Your task to perform on an android device: check battery use Image 0: 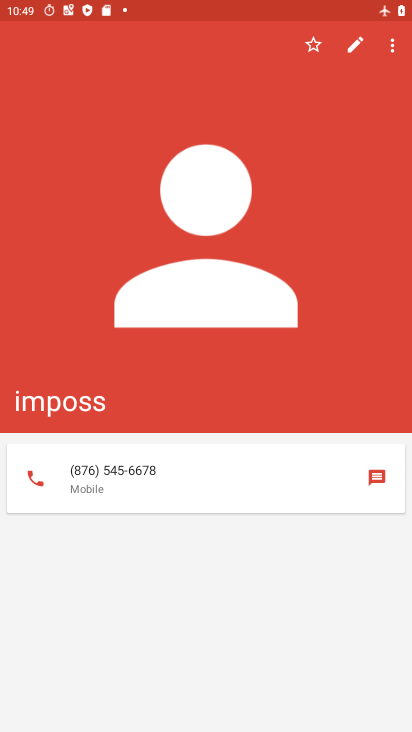
Step 0: press home button
Your task to perform on an android device: check battery use Image 1: 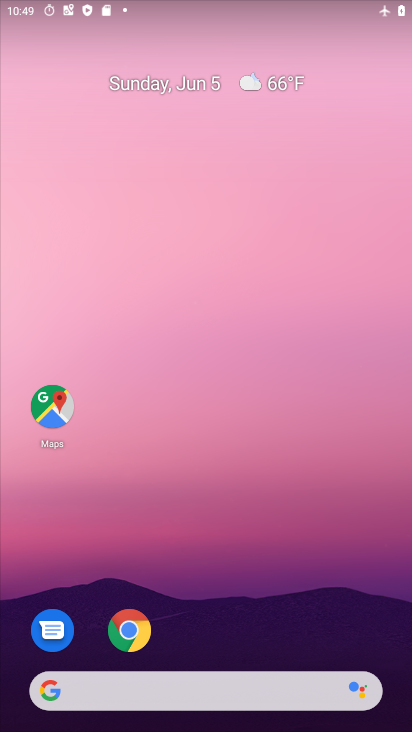
Step 1: drag from (212, 728) to (211, 106)
Your task to perform on an android device: check battery use Image 2: 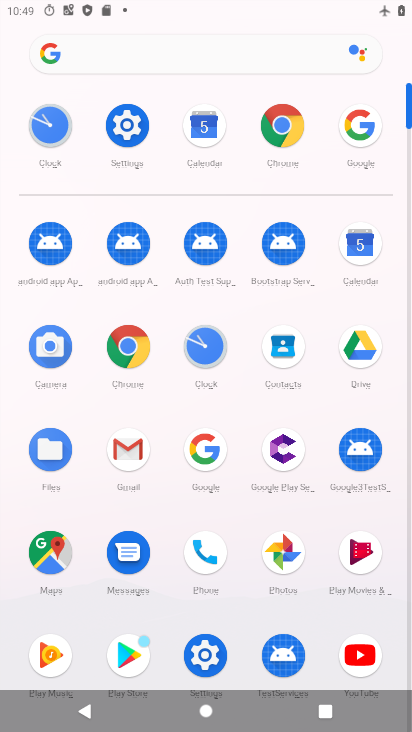
Step 2: click (133, 117)
Your task to perform on an android device: check battery use Image 3: 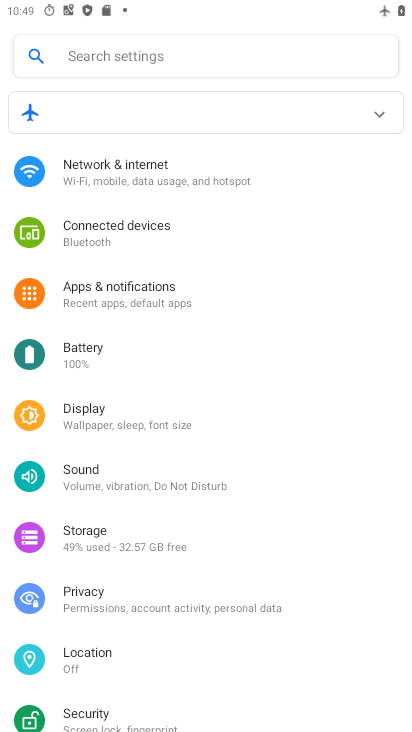
Step 3: click (74, 353)
Your task to perform on an android device: check battery use Image 4: 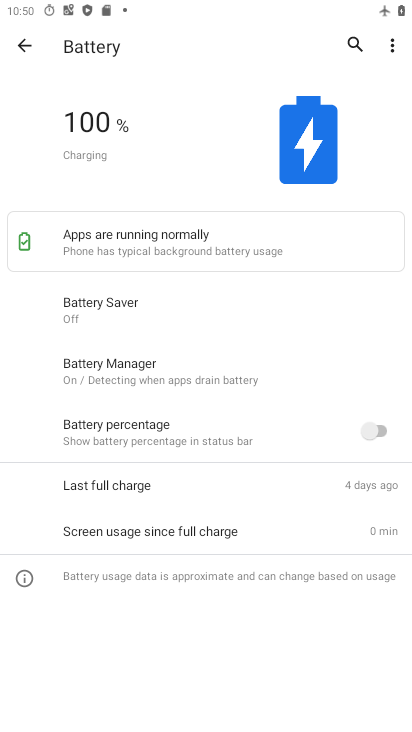
Step 4: click (393, 49)
Your task to perform on an android device: check battery use Image 5: 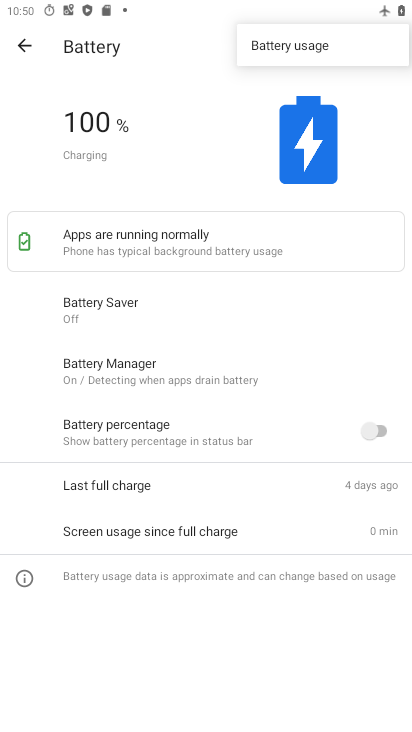
Step 5: click (285, 42)
Your task to perform on an android device: check battery use Image 6: 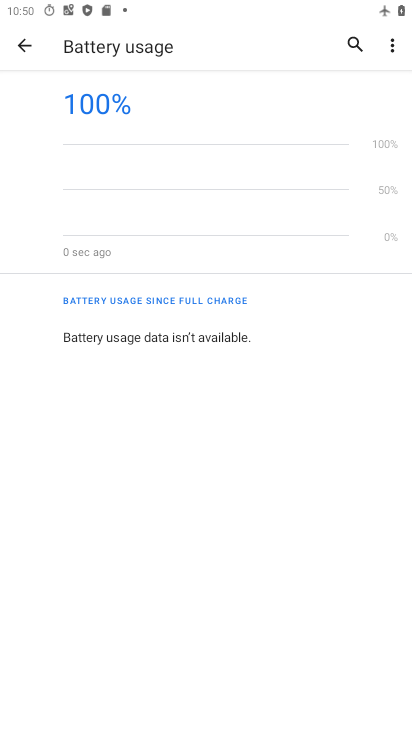
Step 6: task complete